Your task to perform on an android device: Open accessibility settings Image 0: 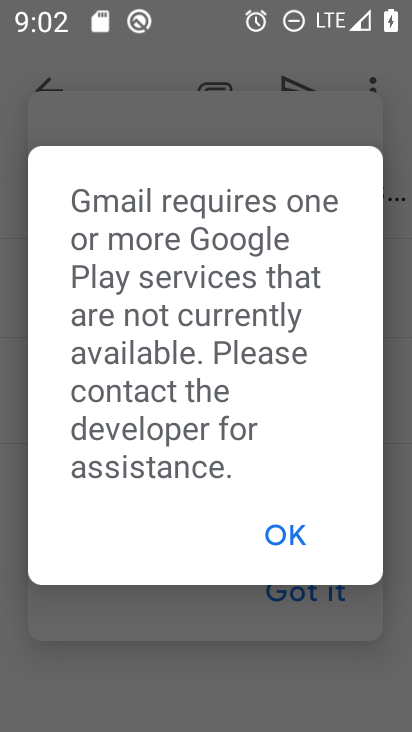
Step 0: press home button
Your task to perform on an android device: Open accessibility settings Image 1: 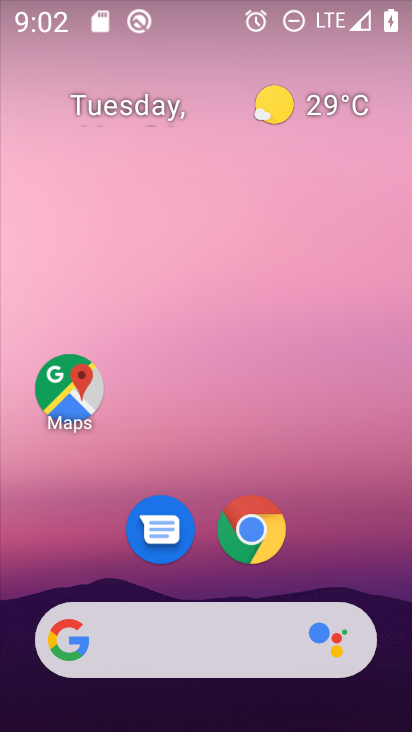
Step 1: drag from (401, 638) to (273, 94)
Your task to perform on an android device: Open accessibility settings Image 2: 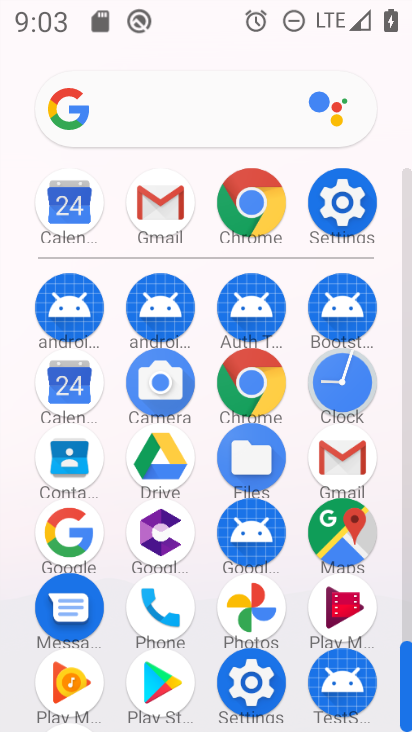
Step 2: click (240, 668)
Your task to perform on an android device: Open accessibility settings Image 3: 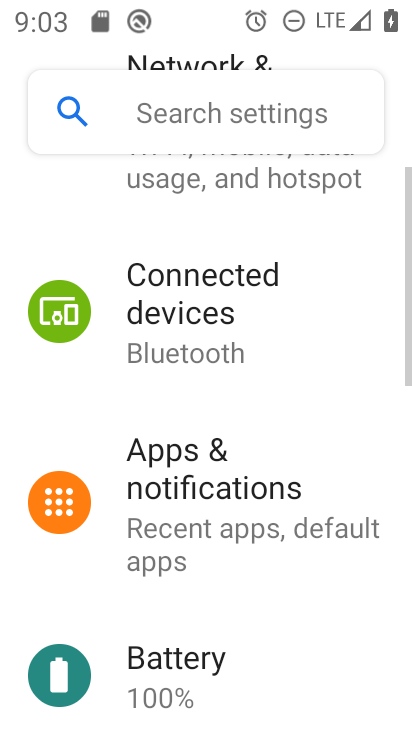
Step 3: drag from (178, 669) to (246, 184)
Your task to perform on an android device: Open accessibility settings Image 4: 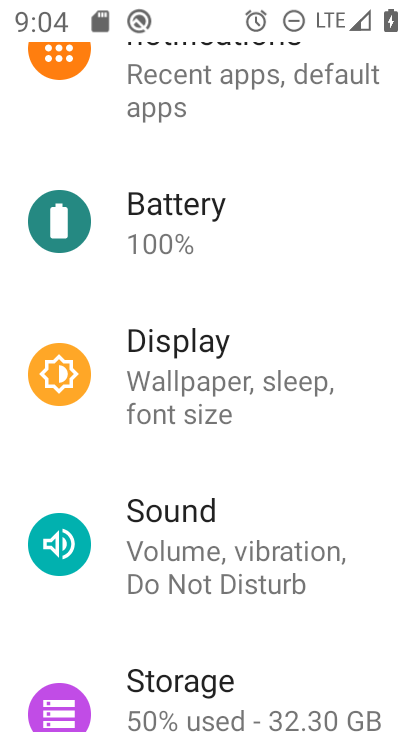
Step 4: drag from (146, 632) to (248, 100)
Your task to perform on an android device: Open accessibility settings Image 5: 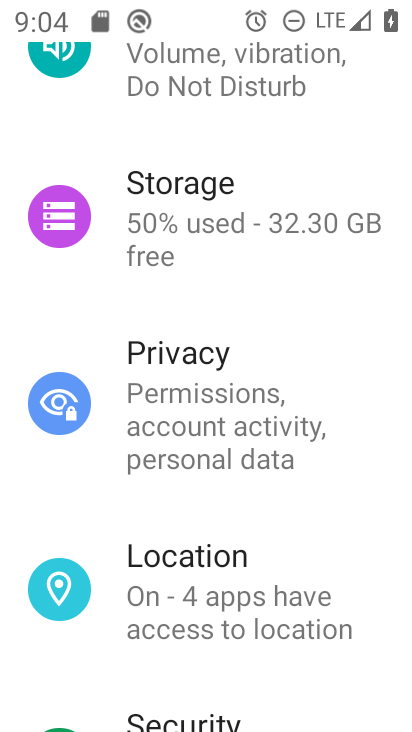
Step 5: drag from (176, 625) to (245, 208)
Your task to perform on an android device: Open accessibility settings Image 6: 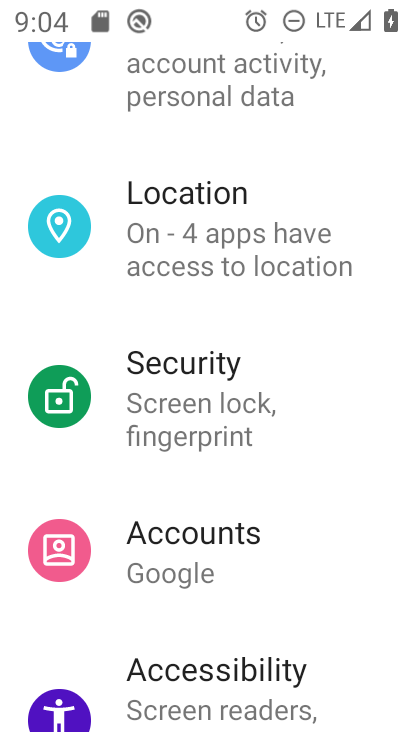
Step 6: drag from (191, 669) to (267, 229)
Your task to perform on an android device: Open accessibility settings Image 7: 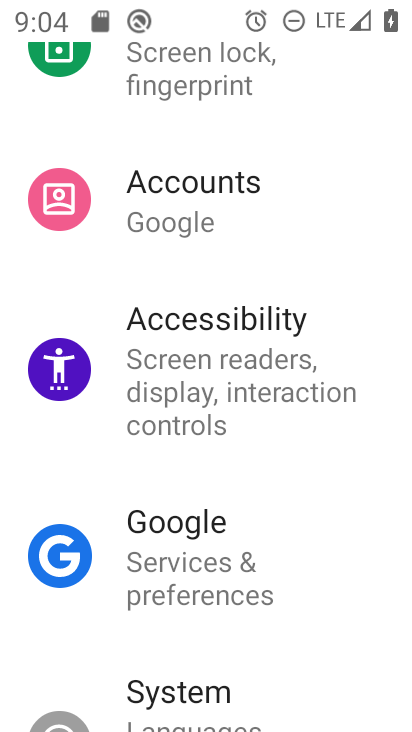
Step 7: click (225, 373)
Your task to perform on an android device: Open accessibility settings Image 8: 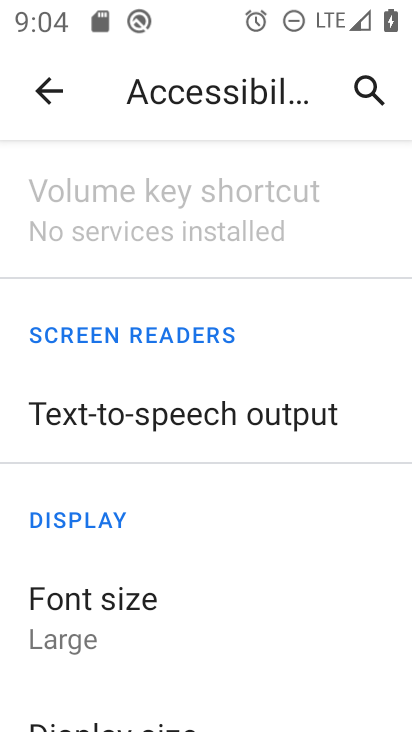
Step 8: task complete